Your task to perform on an android device: Go to Android settings Image 0: 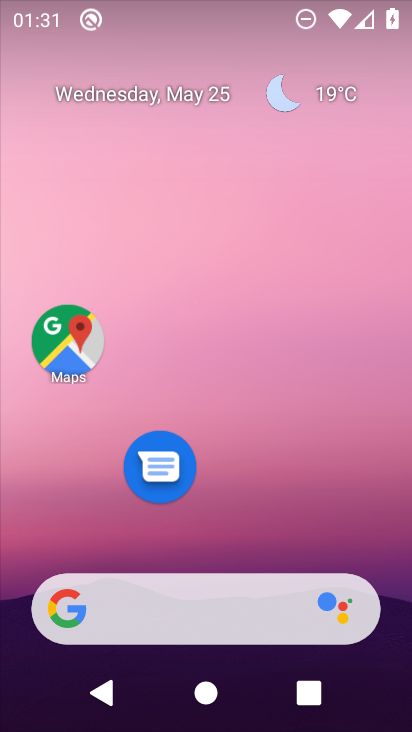
Step 0: click (219, 143)
Your task to perform on an android device: Go to Android settings Image 1: 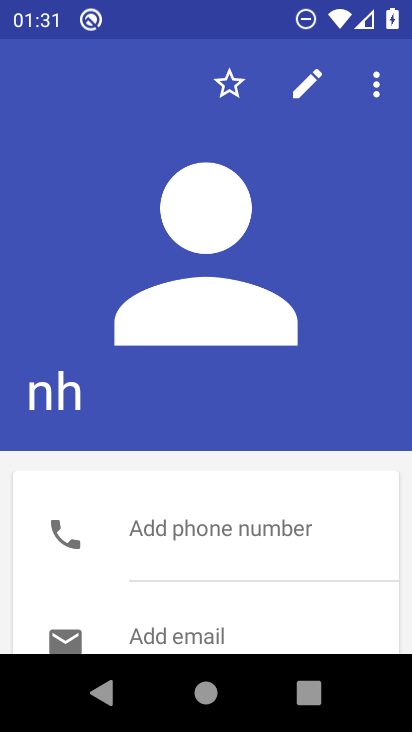
Step 1: drag from (188, 501) to (251, 256)
Your task to perform on an android device: Go to Android settings Image 2: 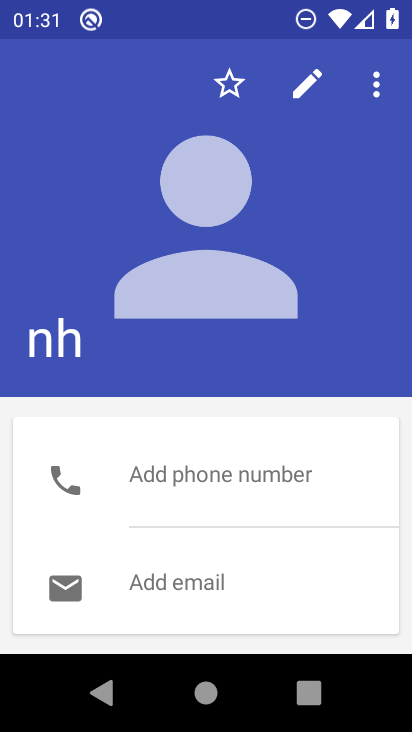
Step 2: press home button
Your task to perform on an android device: Go to Android settings Image 3: 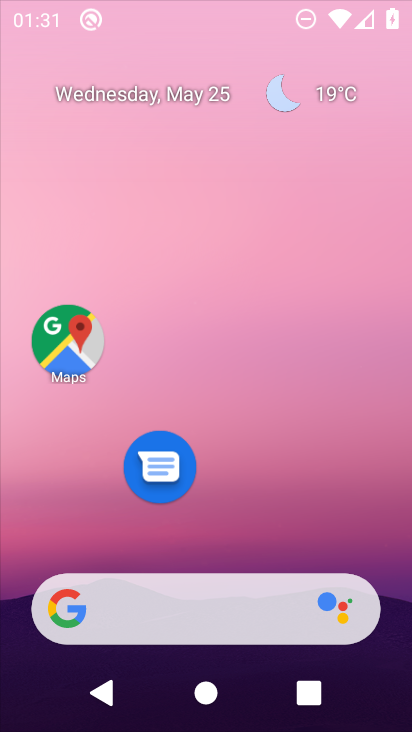
Step 3: drag from (212, 537) to (173, 28)
Your task to perform on an android device: Go to Android settings Image 4: 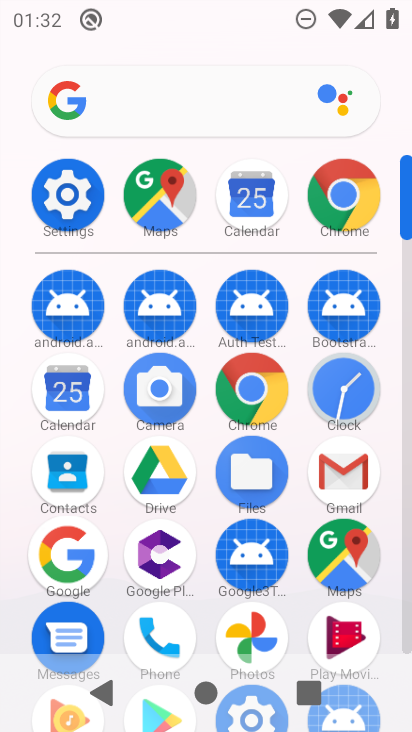
Step 4: click (53, 199)
Your task to perform on an android device: Go to Android settings Image 5: 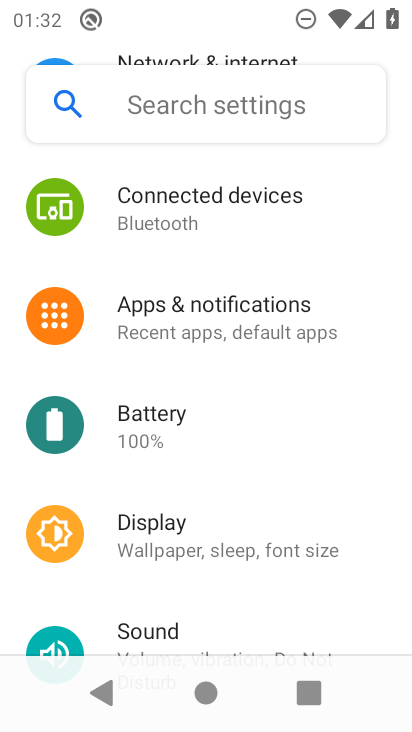
Step 5: drag from (208, 619) to (300, 71)
Your task to perform on an android device: Go to Android settings Image 6: 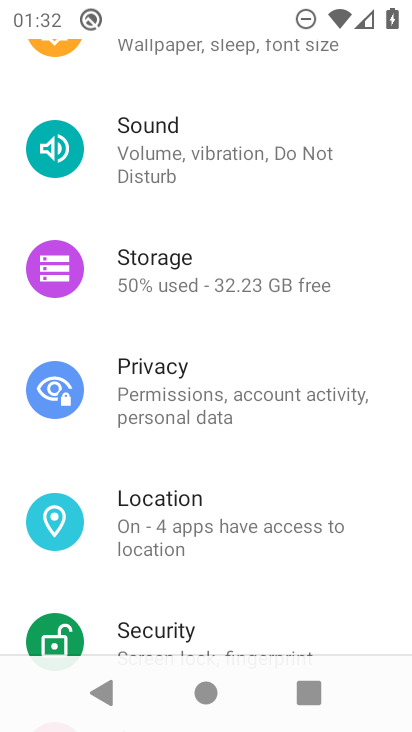
Step 6: drag from (200, 545) to (188, 86)
Your task to perform on an android device: Go to Android settings Image 7: 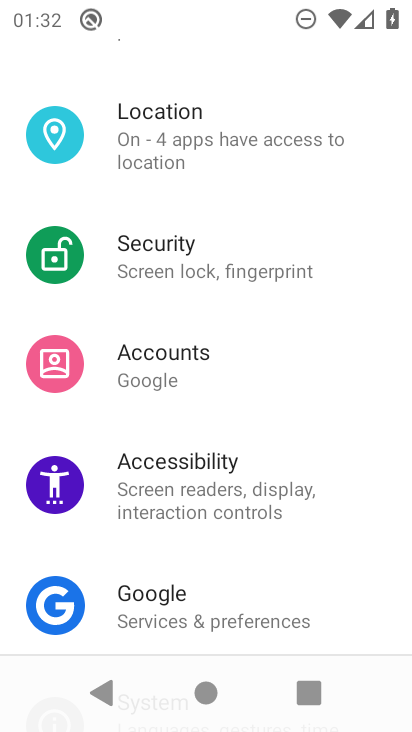
Step 7: drag from (228, 611) to (306, 44)
Your task to perform on an android device: Go to Android settings Image 8: 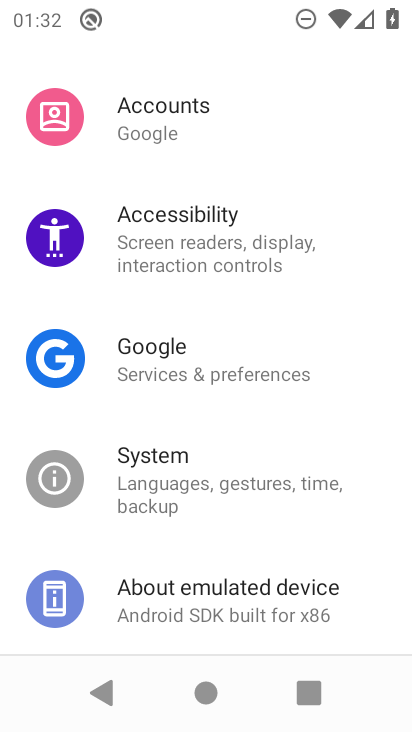
Step 8: click (202, 600)
Your task to perform on an android device: Go to Android settings Image 9: 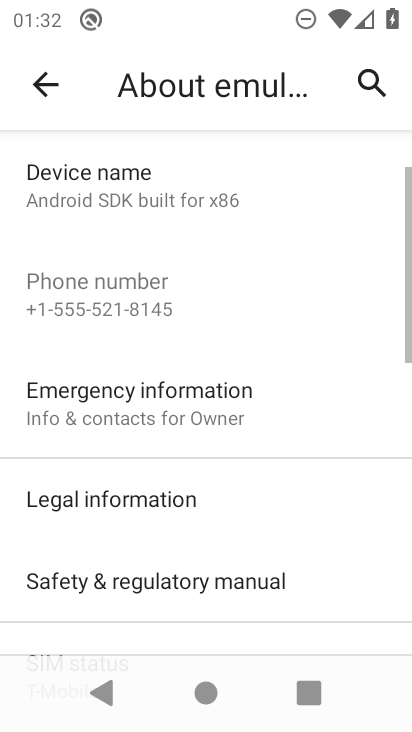
Step 9: drag from (242, 563) to (348, 70)
Your task to perform on an android device: Go to Android settings Image 10: 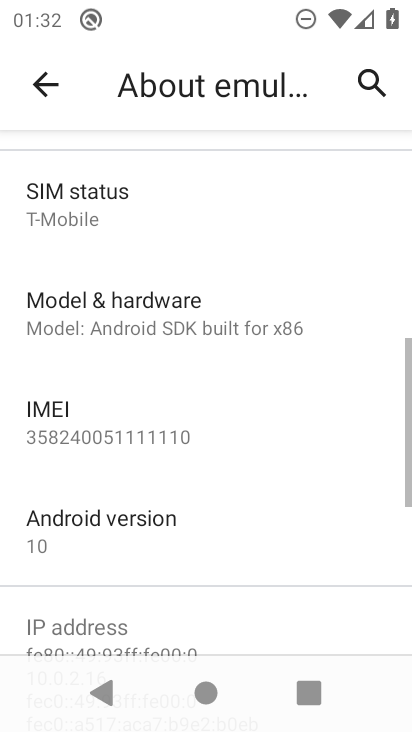
Step 10: click (97, 518)
Your task to perform on an android device: Go to Android settings Image 11: 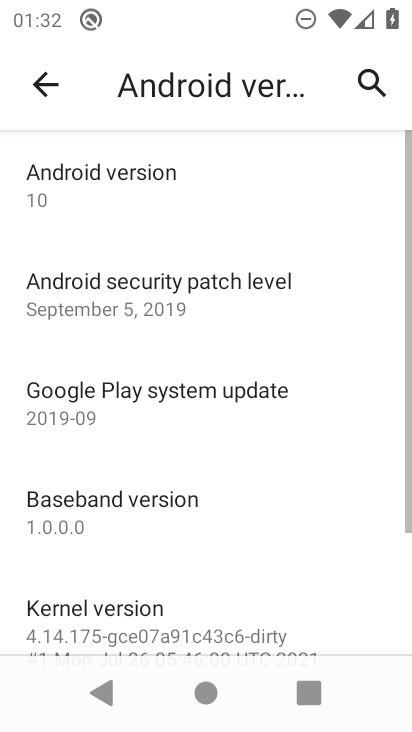
Step 11: drag from (122, 504) to (213, 190)
Your task to perform on an android device: Go to Android settings Image 12: 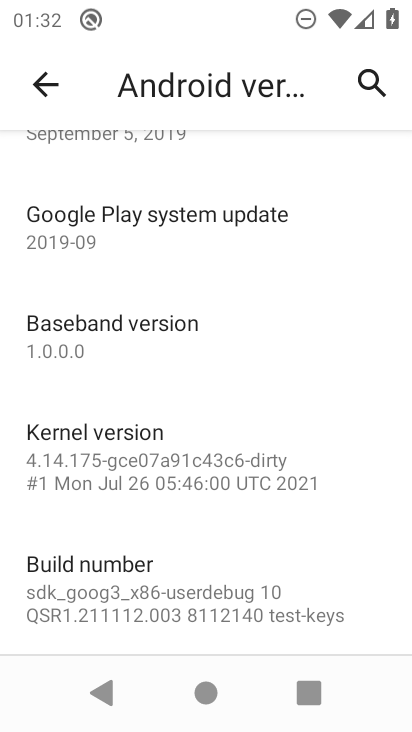
Step 12: drag from (213, 303) to (279, 641)
Your task to perform on an android device: Go to Android settings Image 13: 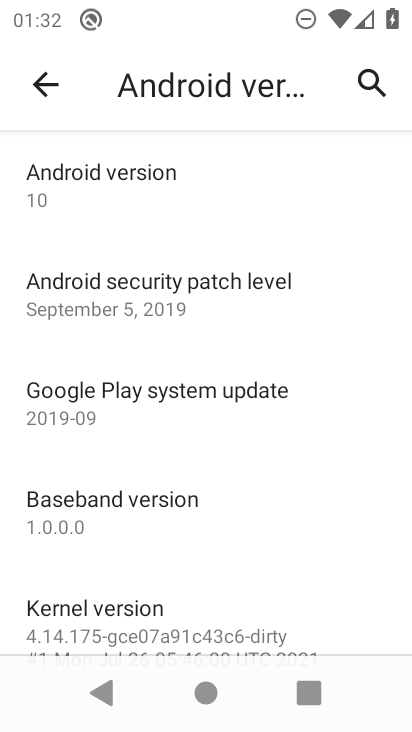
Step 13: click (139, 178)
Your task to perform on an android device: Go to Android settings Image 14: 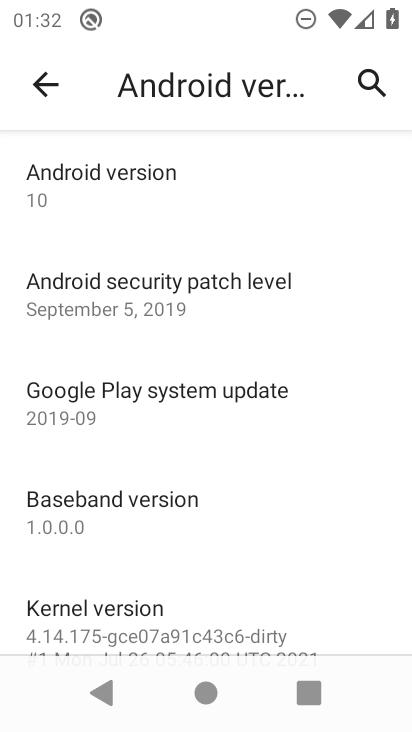
Step 14: task complete